Your task to perform on an android device: choose inbox layout in the gmail app Image 0: 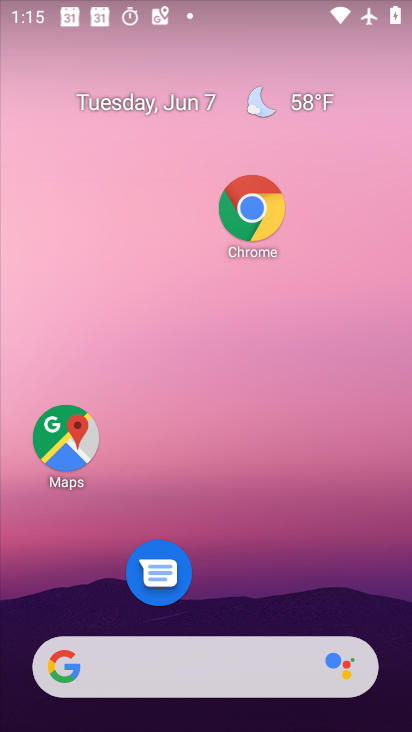
Step 0: click (207, 567)
Your task to perform on an android device: choose inbox layout in the gmail app Image 1: 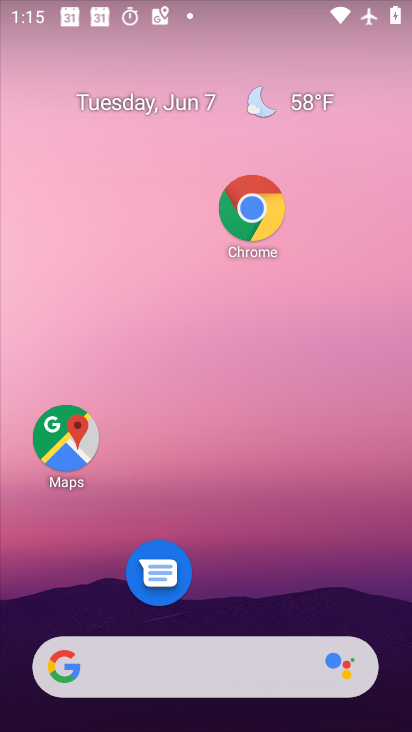
Step 1: drag from (221, 589) to (228, 227)
Your task to perform on an android device: choose inbox layout in the gmail app Image 2: 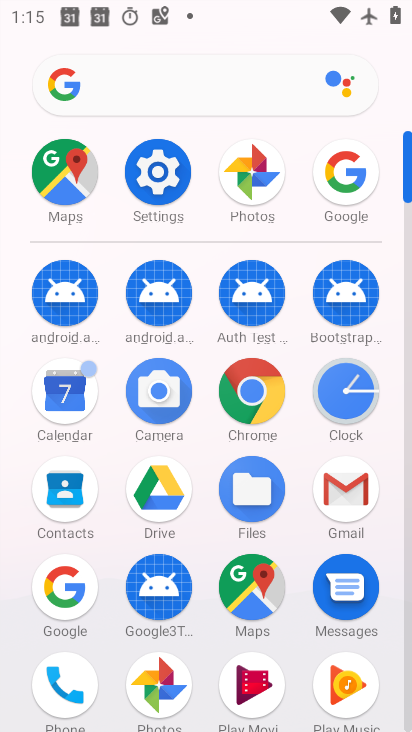
Step 2: click (324, 479)
Your task to perform on an android device: choose inbox layout in the gmail app Image 3: 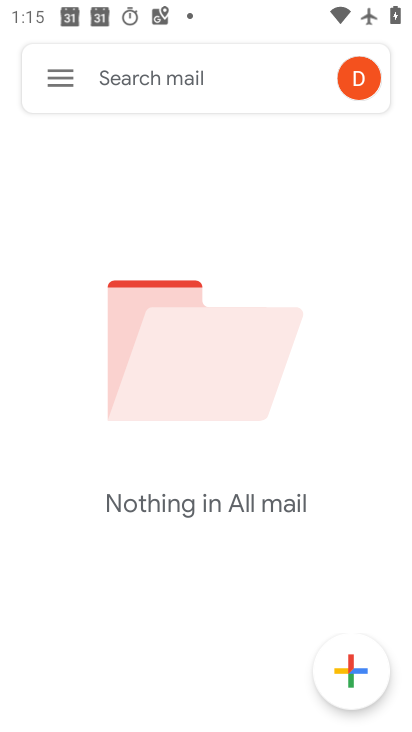
Step 3: click (51, 91)
Your task to perform on an android device: choose inbox layout in the gmail app Image 4: 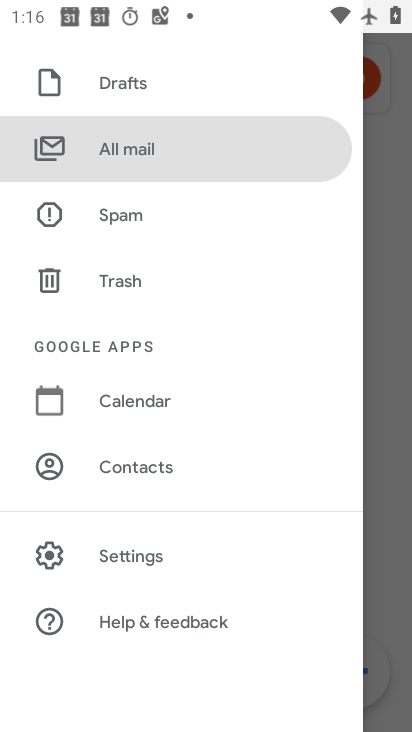
Step 4: click (131, 561)
Your task to perform on an android device: choose inbox layout in the gmail app Image 5: 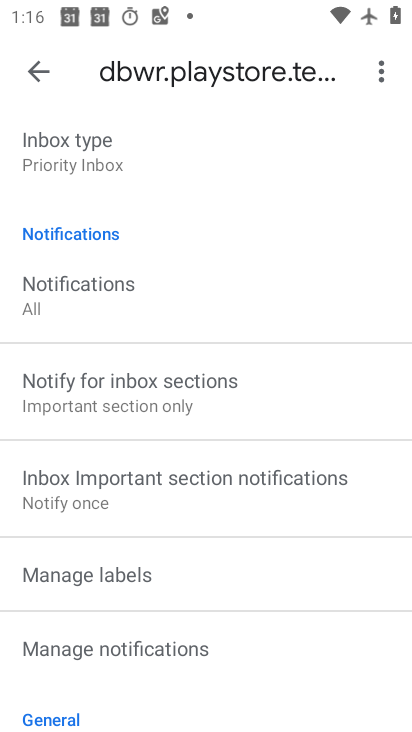
Step 5: click (85, 153)
Your task to perform on an android device: choose inbox layout in the gmail app Image 6: 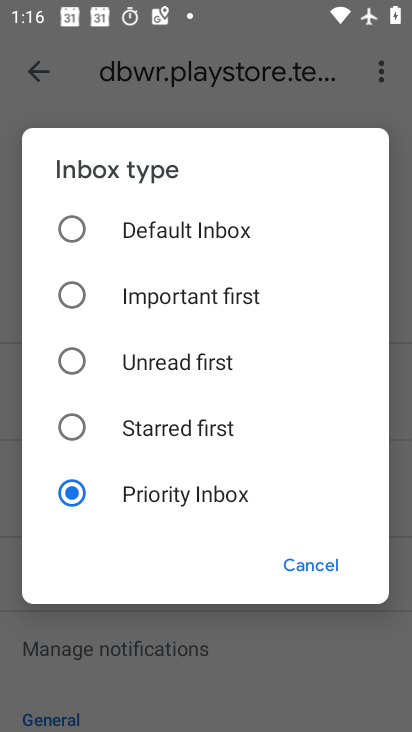
Step 6: click (140, 242)
Your task to perform on an android device: choose inbox layout in the gmail app Image 7: 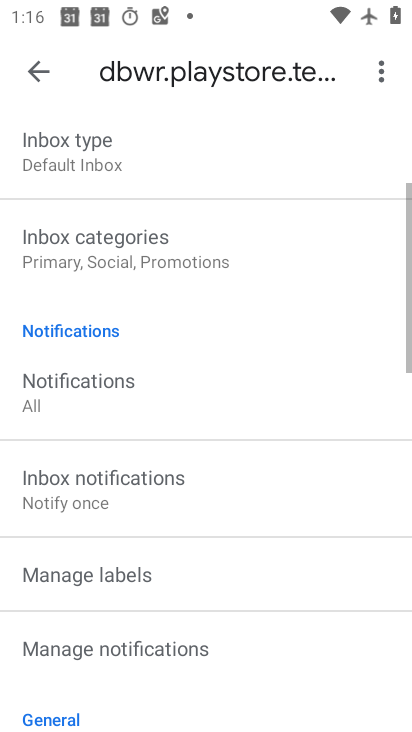
Step 7: task complete